Your task to perform on an android device: turn on airplane mode Image 0: 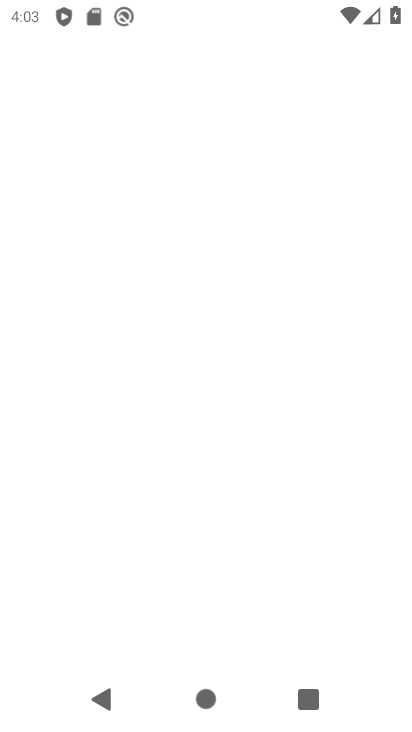
Step 0: drag from (262, 658) to (381, 43)
Your task to perform on an android device: turn on airplane mode Image 1: 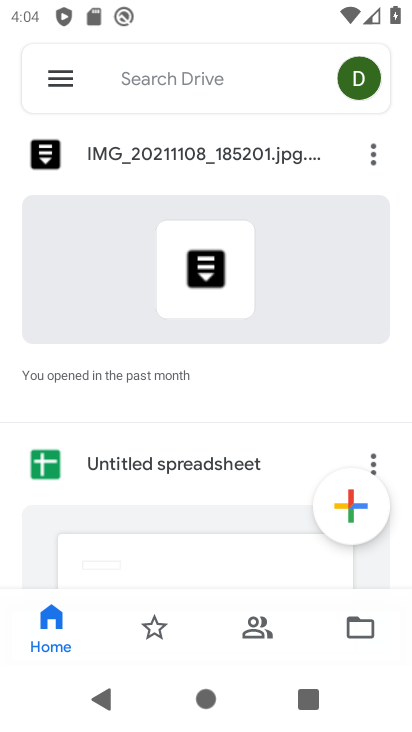
Step 1: press home button
Your task to perform on an android device: turn on airplane mode Image 2: 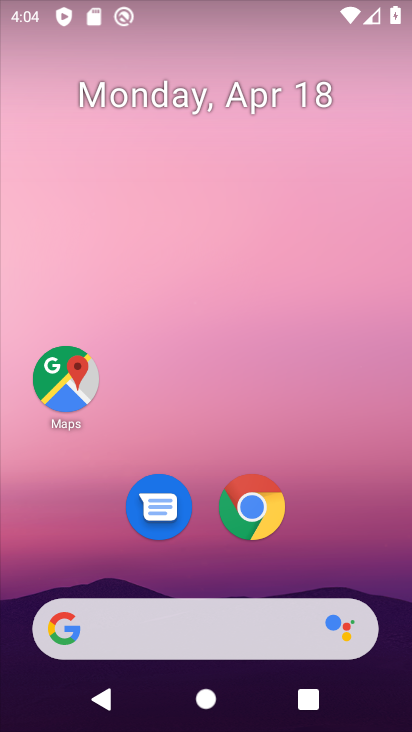
Step 2: drag from (325, 429) to (314, 21)
Your task to perform on an android device: turn on airplane mode Image 3: 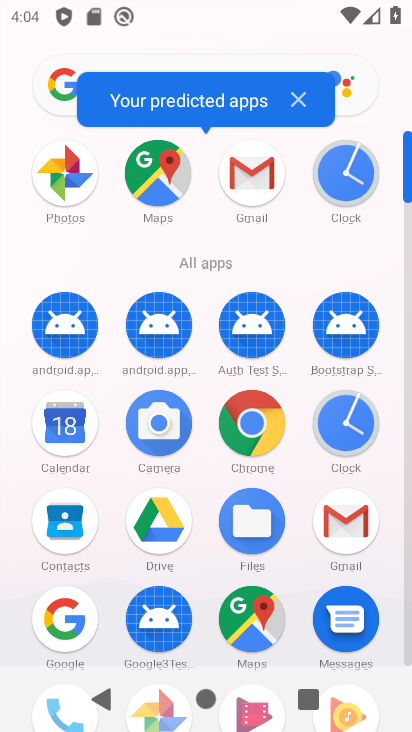
Step 3: drag from (216, 566) to (197, 184)
Your task to perform on an android device: turn on airplane mode Image 4: 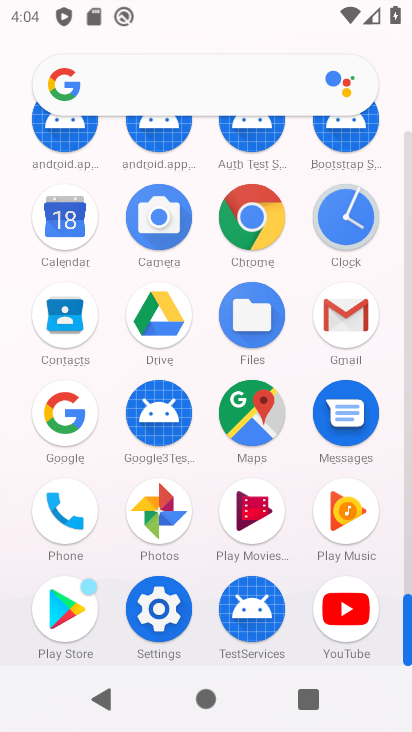
Step 4: click (172, 617)
Your task to perform on an android device: turn on airplane mode Image 5: 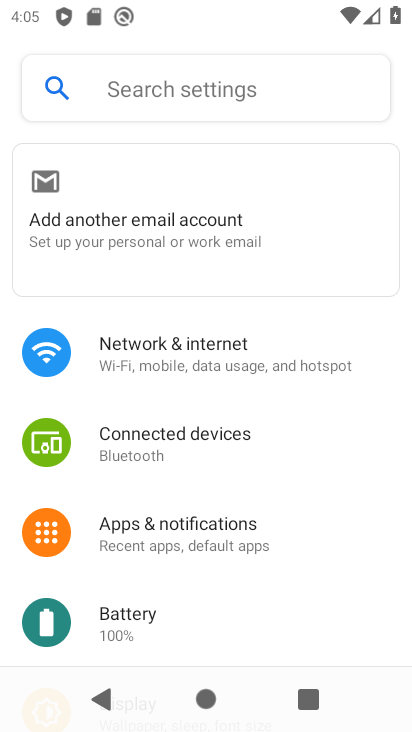
Step 5: drag from (205, 625) to (196, 186)
Your task to perform on an android device: turn on airplane mode Image 6: 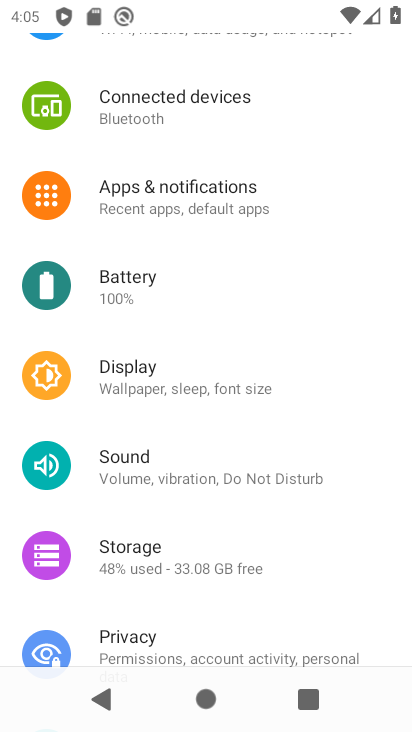
Step 6: drag from (198, 158) to (235, 585)
Your task to perform on an android device: turn on airplane mode Image 7: 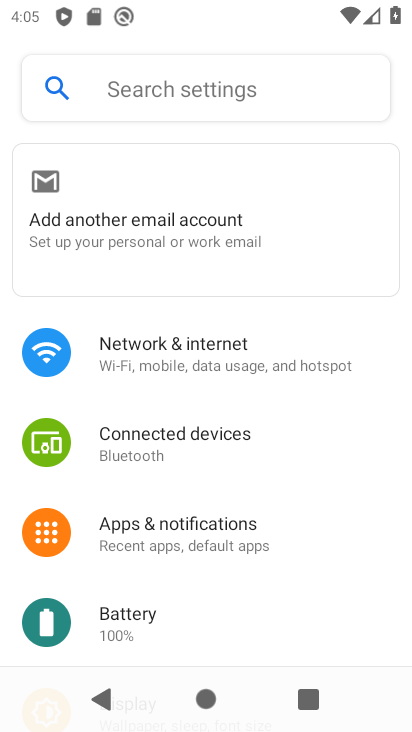
Step 7: click (226, 361)
Your task to perform on an android device: turn on airplane mode Image 8: 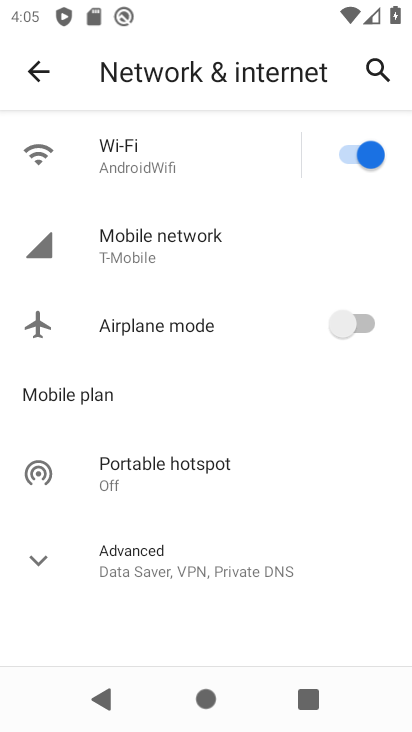
Step 8: click (368, 322)
Your task to perform on an android device: turn on airplane mode Image 9: 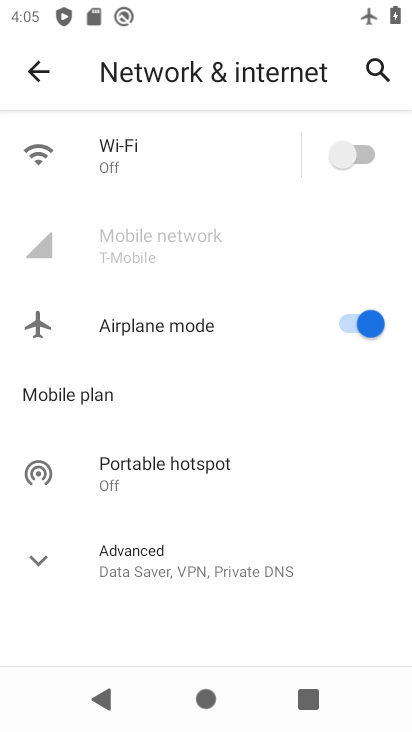
Step 9: task complete